Your task to perform on an android device: Open Google Chrome and open the bookmarks view Image 0: 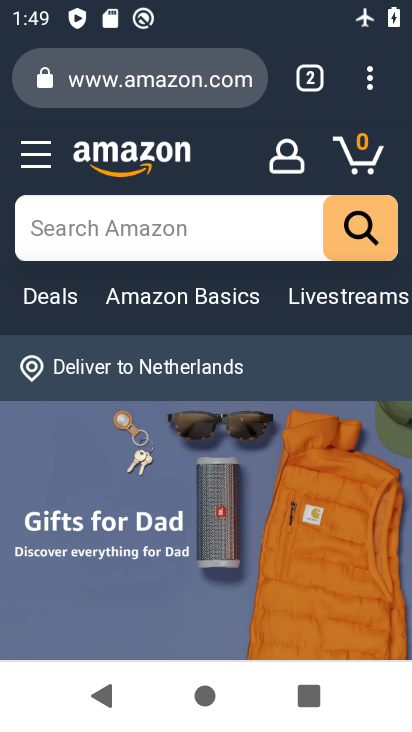
Step 0: press home button
Your task to perform on an android device: Open Google Chrome and open the bookmarks view Image 1: 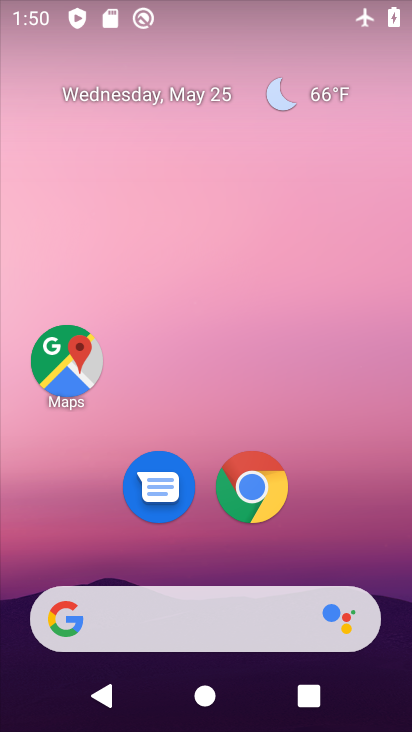
Step 1: click (257, 502)
Your task to perform on an android device: Open Google Chrome and open the bookmarks view Image 2: 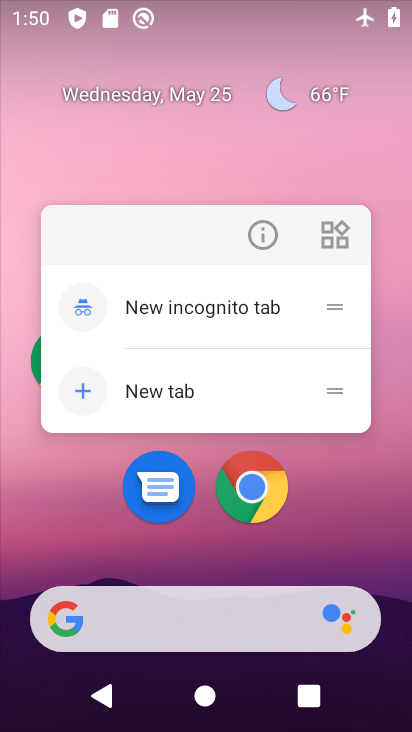
Step 2: click (264, 481)
Your task to perform on an android device: Open Google Chrome and open the bookmarks view Image 3: 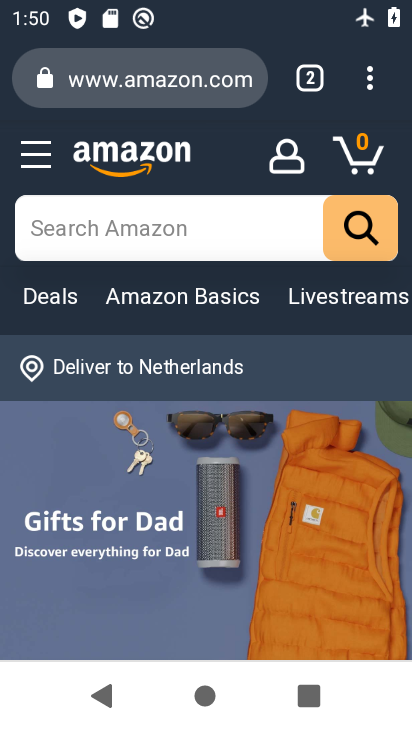
Step 3: click (374, 83)
Your task to perform on an android device: Open Google Chrome and open the bookmarks view Image 4: 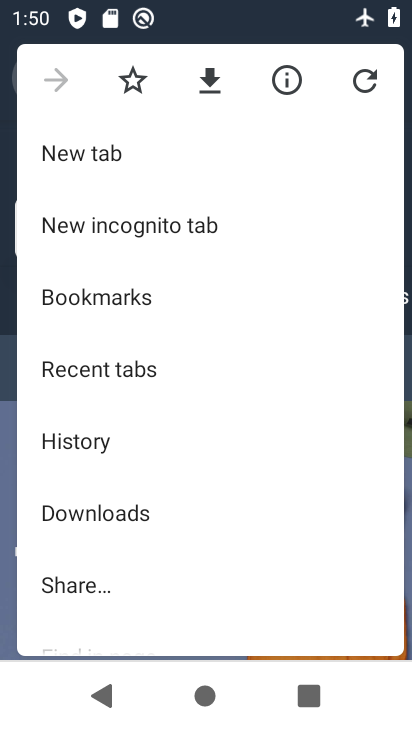
Step 4: click (104, 307)
Your task to perform on an android device: Open Google Chrome and open the bookmarks view Image 5: 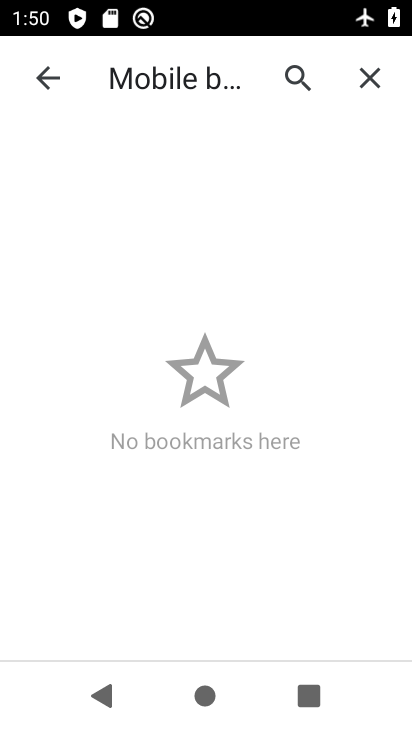
Step 5: task complete